Your task to perform on an android device: toggle translation in the chrome app Image 0: 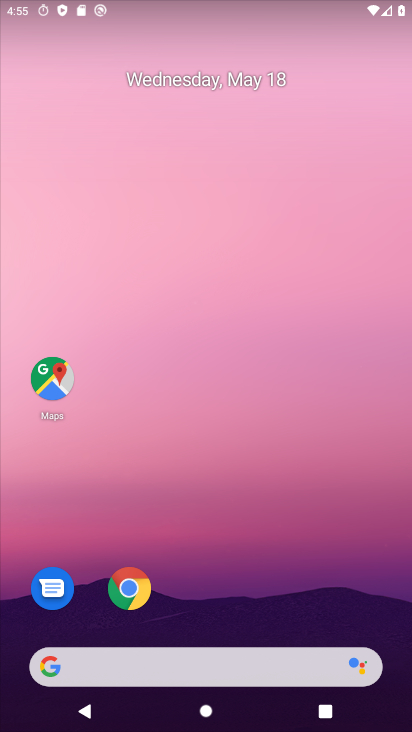
Step 0: click (114, 579)
Your task to perform on an android device: toggle translation in the chrome app Image 1: 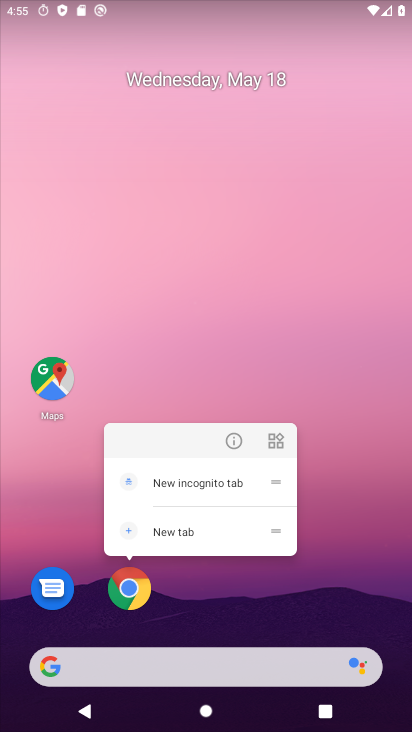
Step 1: click (126, 590)
Your task to perform on an android device: toggle translation in the chrome app Image 2: 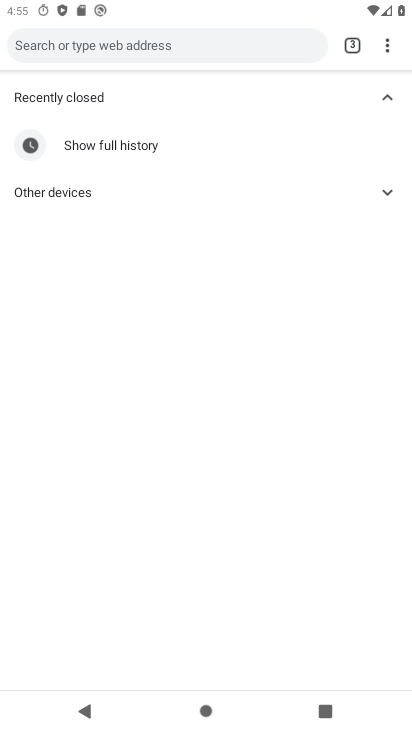
Step 2: drag from (387, 44) to (225, 379)
Your task to perform on an android device: toggle translation in the chrome app Image 3: 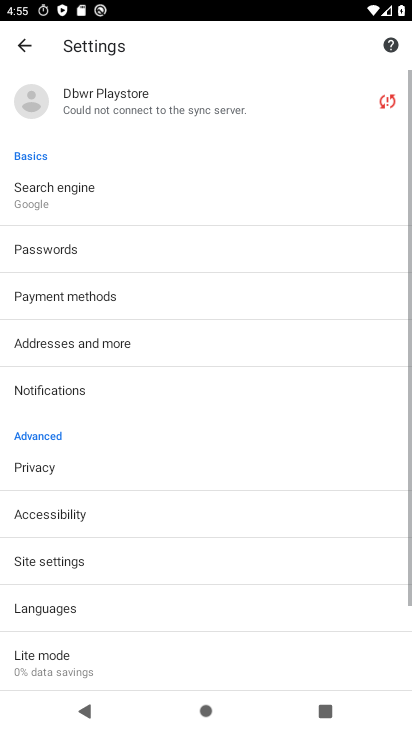
Step 3: drag from (101, 599) to (185, 273)
Your task to perform on an android device: toggle translation in the chrome app Image 4: 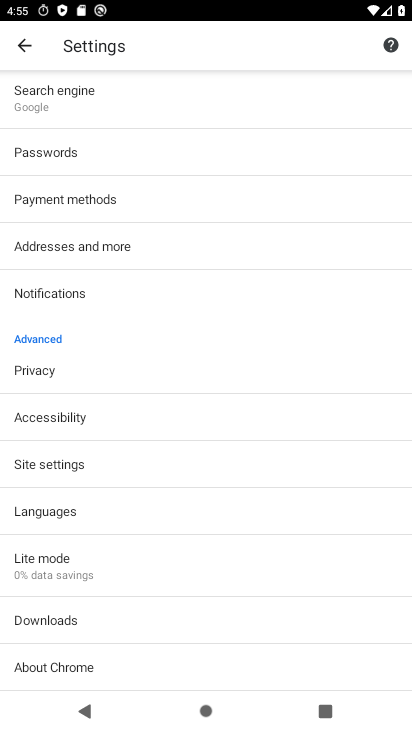
Step 4: click (29, 511)
Your task to perform on an android device: toggle translation in the chrome app Image 5: 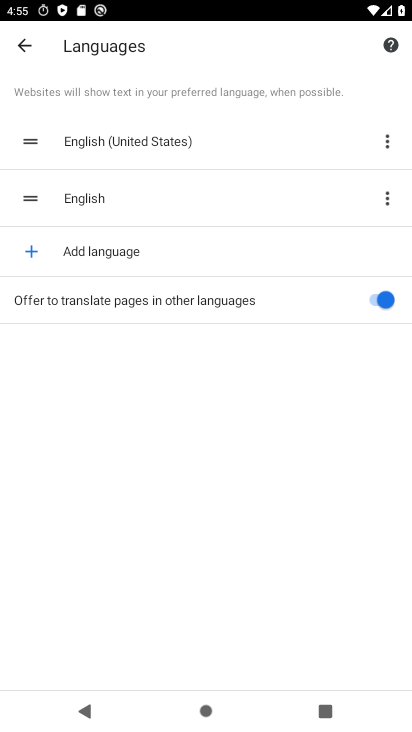
Step 5: click (377, 291)
Your task to perform on an android device: toggle translation in the chrome app Image 6: 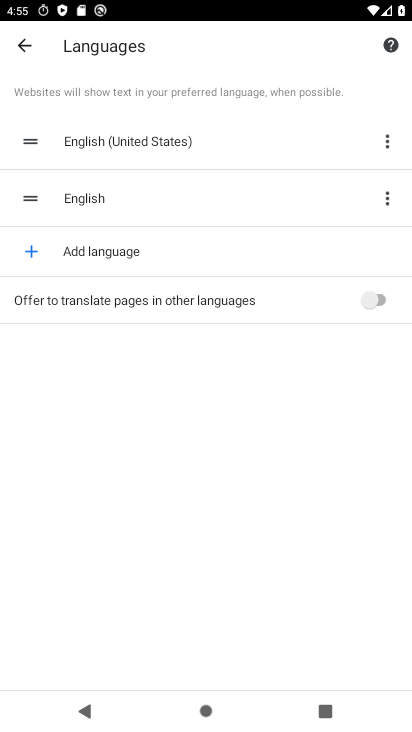
Step 6: task complete